Your task to perform on an android device: Search for pizza restaurants on Maps Image 0: 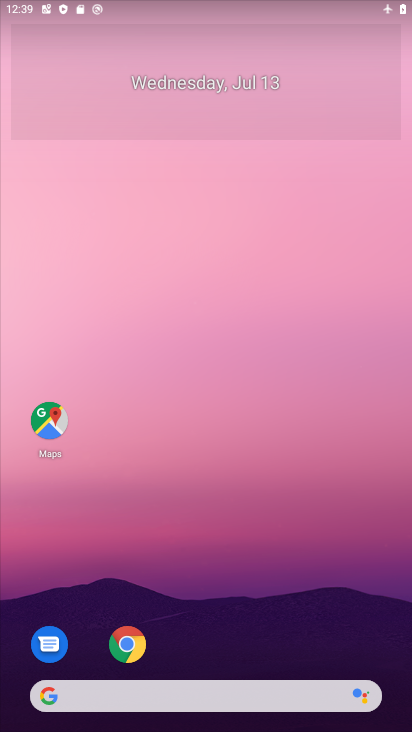
Step 0: drag from (316, 634) to (274, 70)
Your task to perform on an android device: Search for pizza restaurants on Maps Image 1: 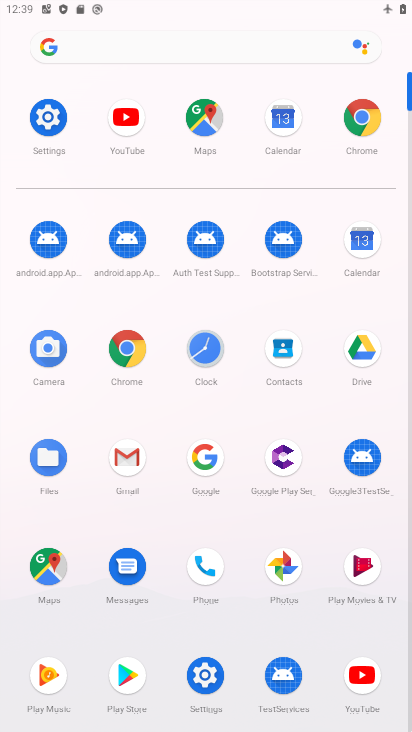
Step 1: click (202, 113)
Your task to perform on an android device: Search for pizza restaurants on Maps Image 2: 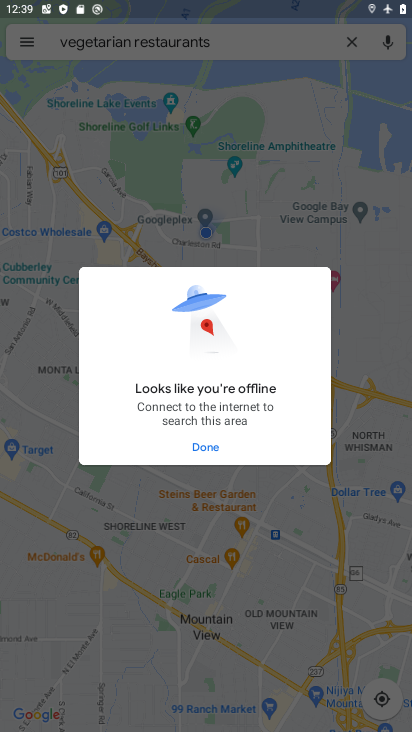
Step 2: click (204, 449)
Your task to perform on an android device: Search for pizza restaurants on Maps Image 3: 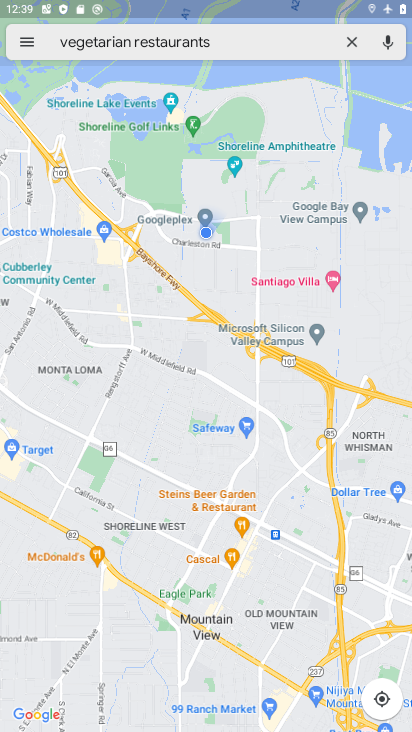
Step 3: click (357, 43)
Your task to perform on an android device: Search for pizza restaurants on Maps Image 4: 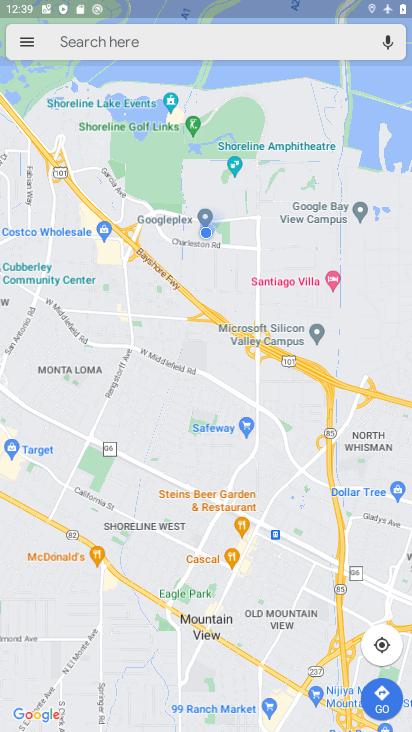
Step 4: click (274, 33)
Your task to perform on an android device: Search for pizza restaurants on Maps Image 5: 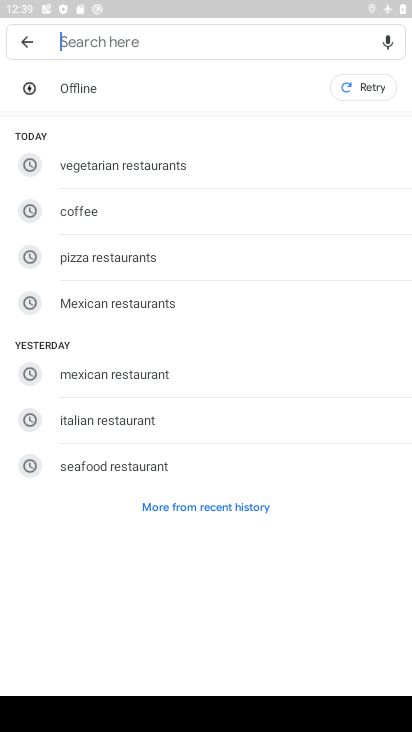
Step 5: click (189, 259)
Your task to perform on an android device: Search for pizza restaurants on Maps Image 6: 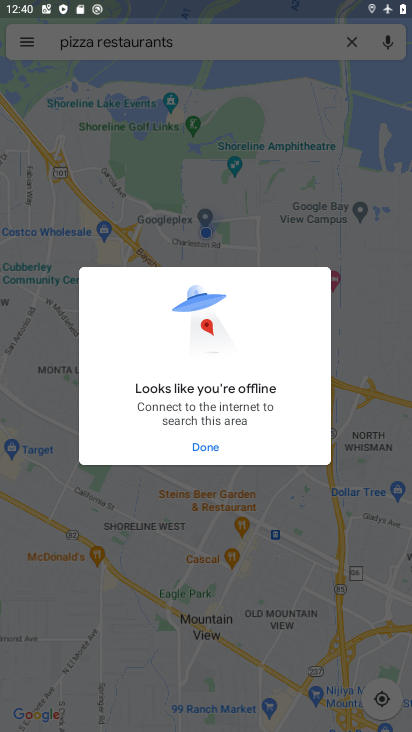
Step 6: task complete